Your task to perform on an android device: Open display settings Image 0: 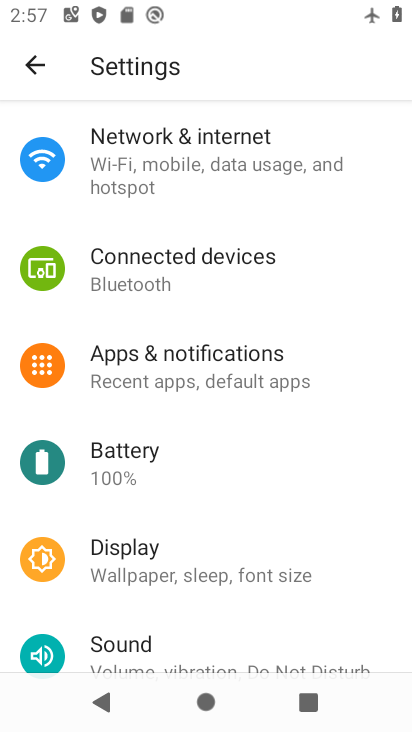
Step 0: click (223, 573)
Your task to perform on an android device: Open display settings Image 1: 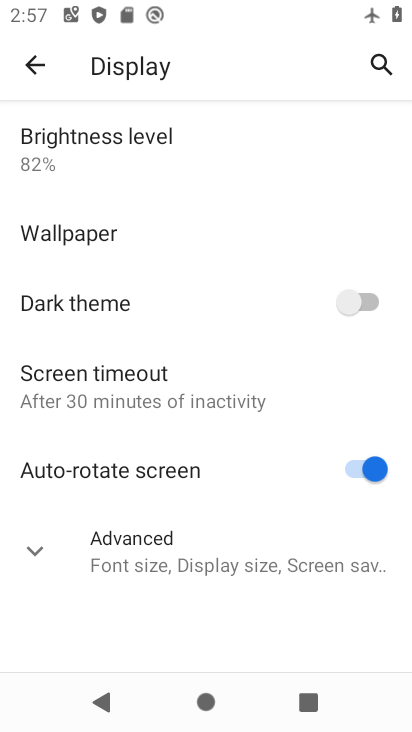
Step 1: task complete